Your task to perform on an android device: change the clock display to show seconds Image 0: 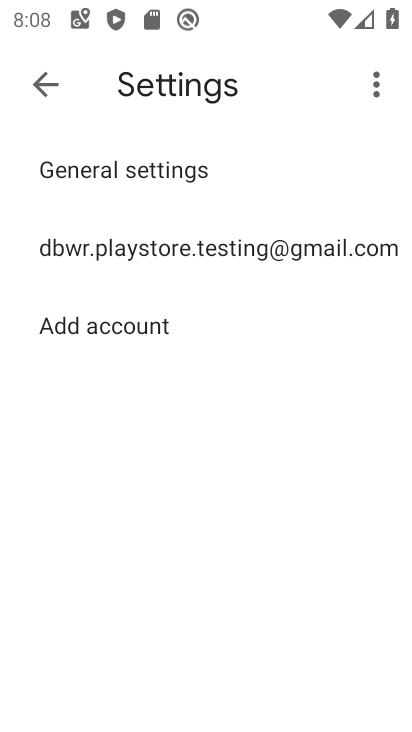
Step 0: press home button
Your task to perform on an android device: change the clock display to show seconds Image 1: 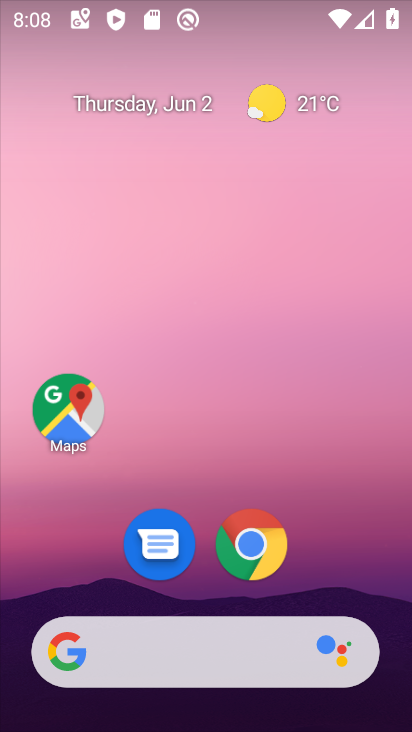
Step 1: drag from (381, 565) to (240, 158)
Your task to perform on an android device: change the clock display to show seconds Image 2: 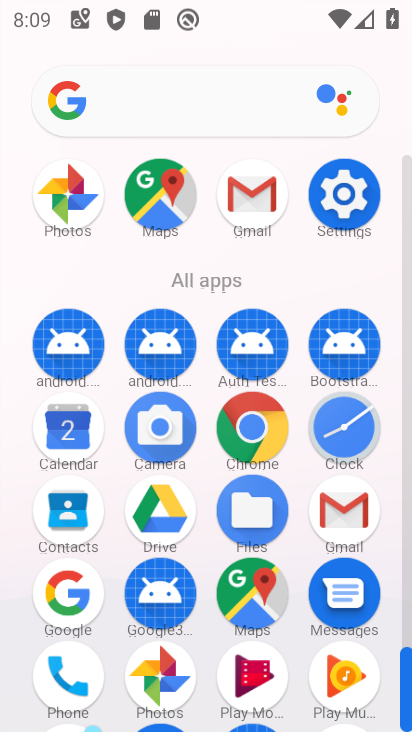
Step 2: click (344, 436)
Your task to perform on an android device: change the clock display to show seconds Image 3: 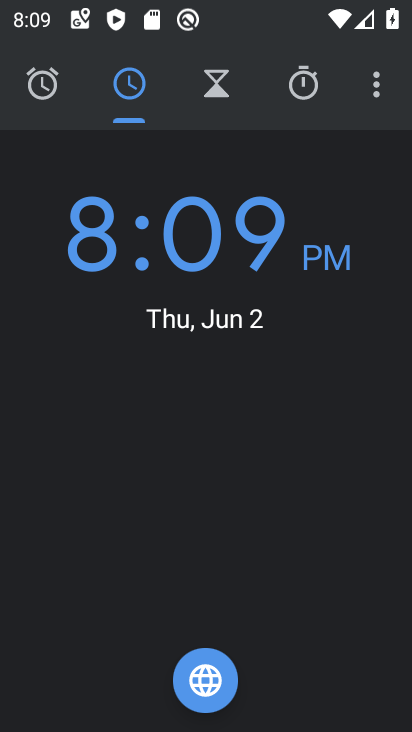
Step 3: click (376, 79)
Your task to perform on an android device: change the clock display to show seconds Image 4: 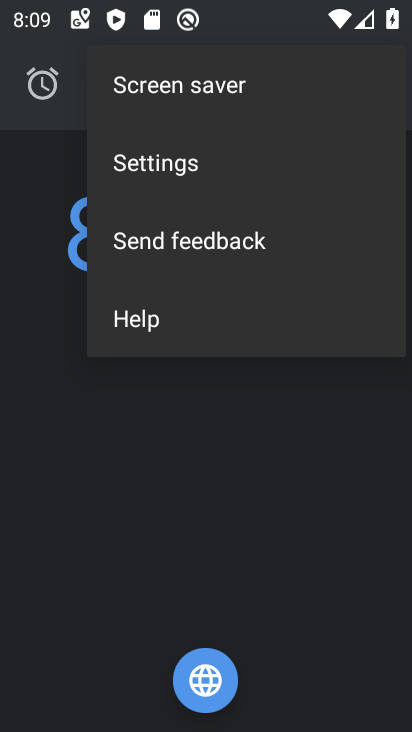
Step 4: click (204, 170)
Your task to perform on an android device: change the clock display to show seconds Image 5: 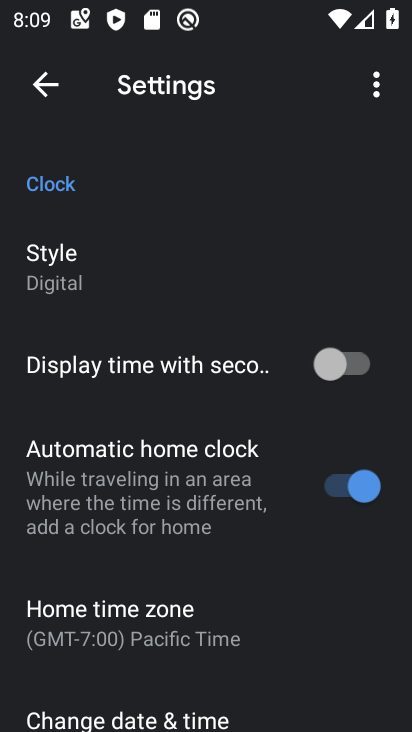
Step 5: click (361, 369)
Your task to perform on an android device: change the clock display to show seconds Image 6: 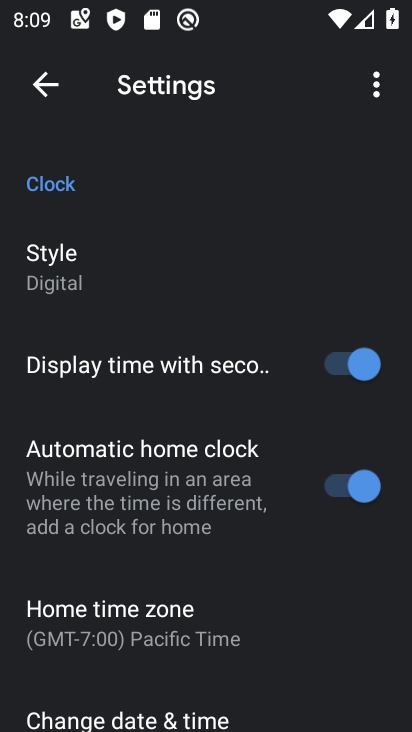
Step 6: task complete